Your task to perform on an android device: Open Chrome and go to the settings page Image 0: 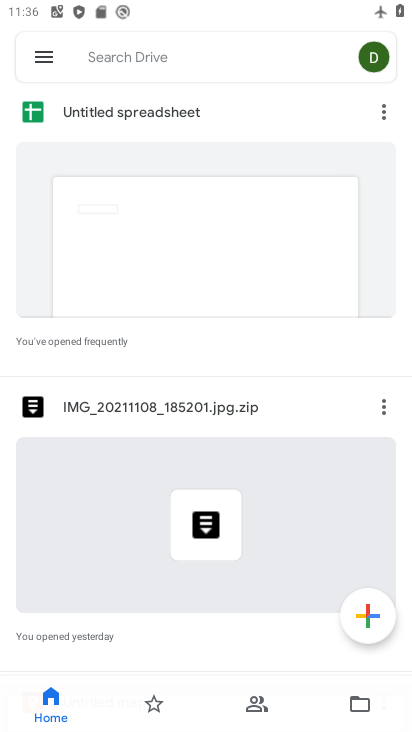
Step 0: press home button
Your task to perform on an android device: Open Chrome and go to the settings page Image 1: 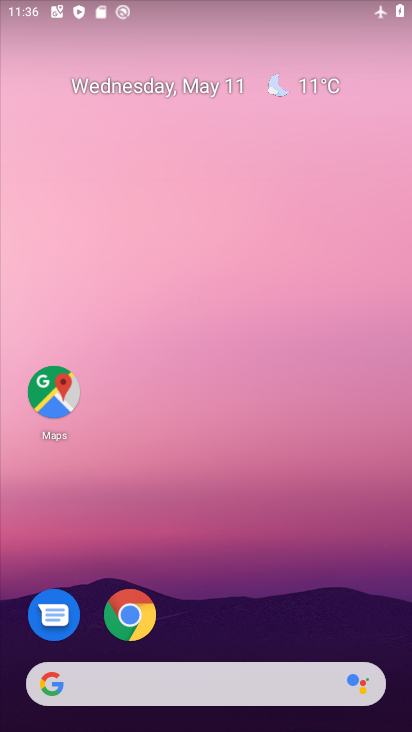
Step 1: drag from (303, 536) to (352, 182)
Your task to perform on an android device: Open Chrome and go to the settings page Image 2: 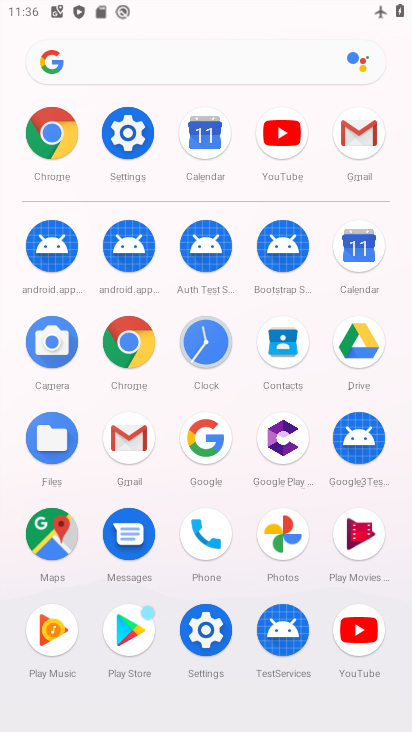
Step 2: click (129, 124)
Your task to perform on an android device: Open Chrome and go to the settings page Image 3: 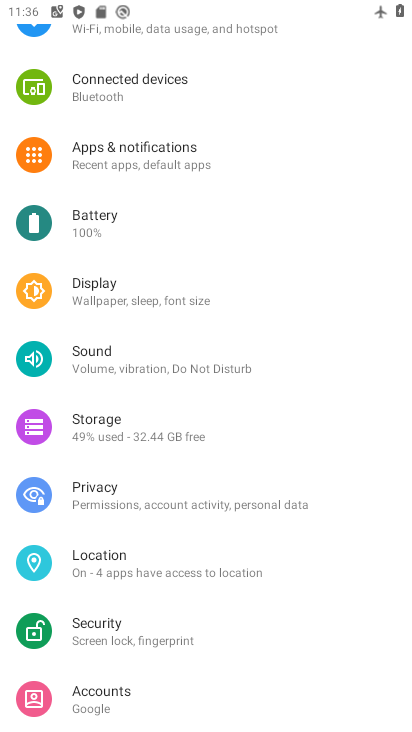
Step 3: press home button
Your task to perform on an android device: Open Chrome and go to the settings page Image 4: 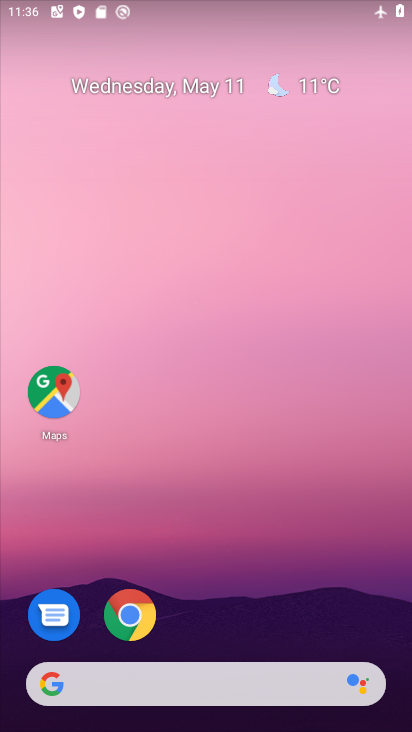
Step 4: click (141, 619)
Your task to perform on an android device: Open Chrome and go to the settings page Image 5: 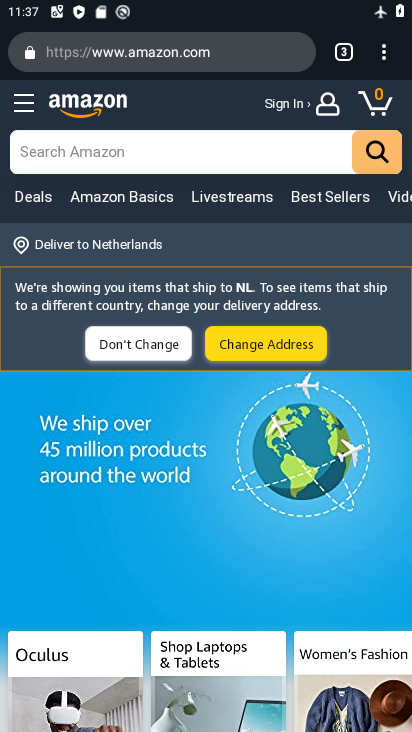
Step 5: click (384, 57)
Your task to perform on an android device: Open Chrome and go to the settings page Image 6: 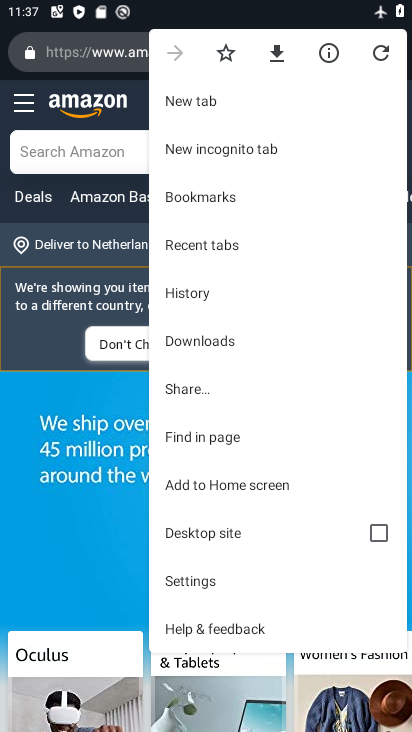
Step 6: click (214, 579)
Your task to perform on an android device: Open Chrome and go to the settings page Image 7: 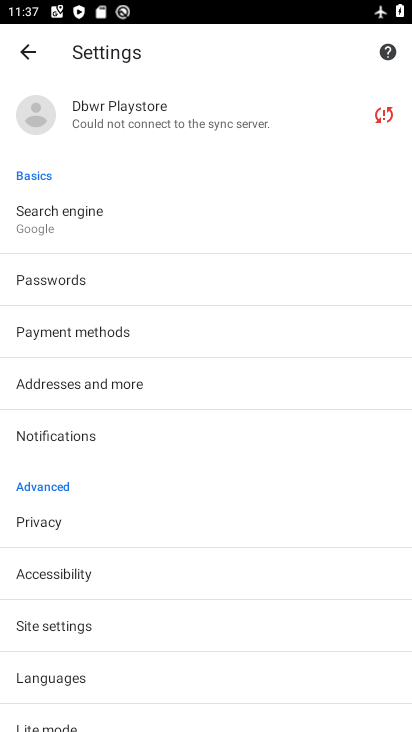
Step 7: task complete